Your task to perform on an android device: turn off notifications in google photos Image 0: 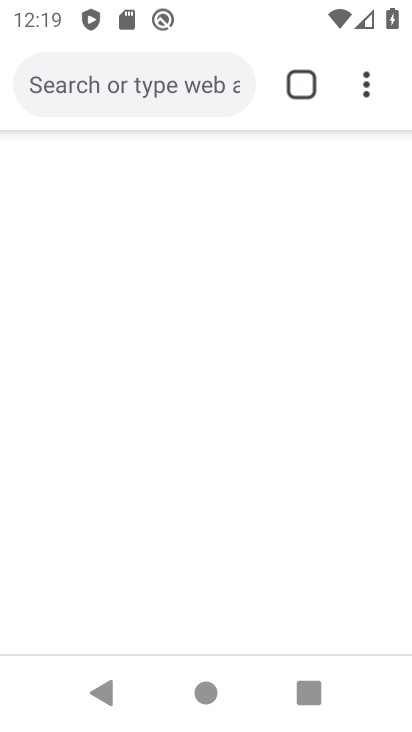
Step 0: drag from (330, 462) to (288, 214)
Your task to perform on an android device: turn off notifications in google photos Image 1: 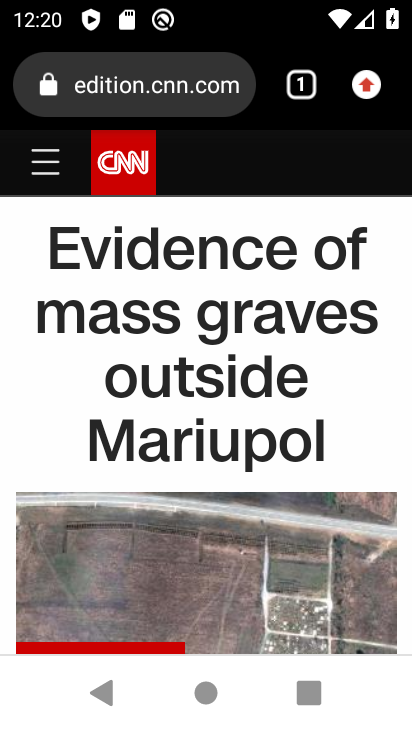
Step 1: drag from (364, 79) to (197, 518)
Your task to perform on an android device: turn off notifications in google photos Image 2: 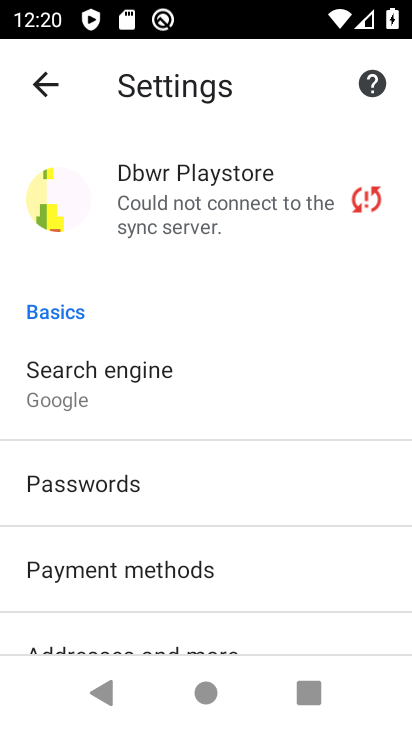
Step 2: drag from (227, 511) to (244, 196)
Your task to perform on an android device: turn off notifications in google photos Image 3: 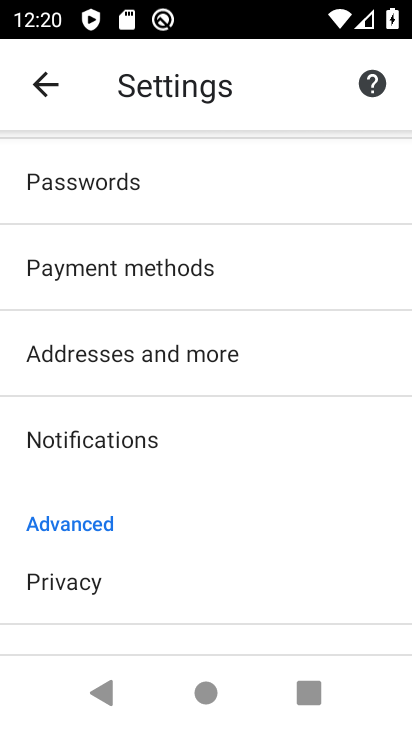
Step 3: click (160, 450)
Your task to perform on an android device: turn off notifications in google photos Image 4: 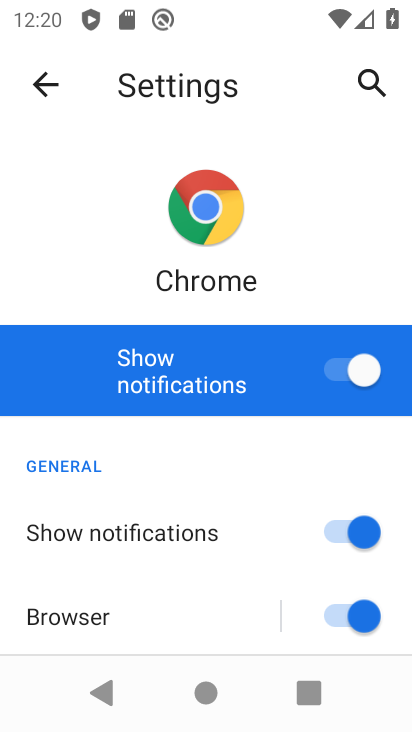
Step 4: click (60, 90)
Your task to perform on an android device: turn off notifications in google photos Image 5: 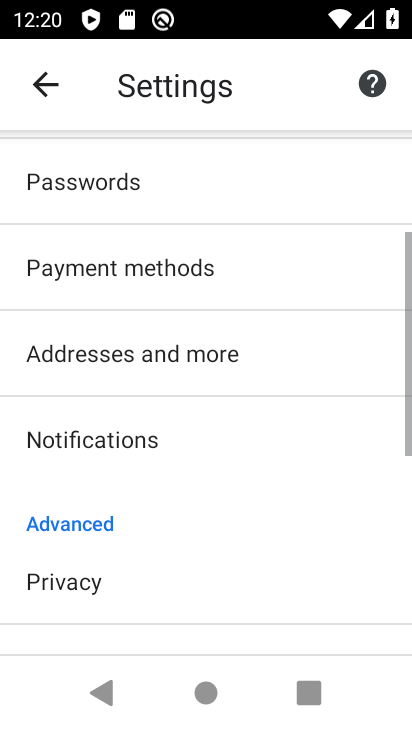
Step 5: click (55, 88)
Your task to perform on an android device: turn off notifications in google photos Image 6: 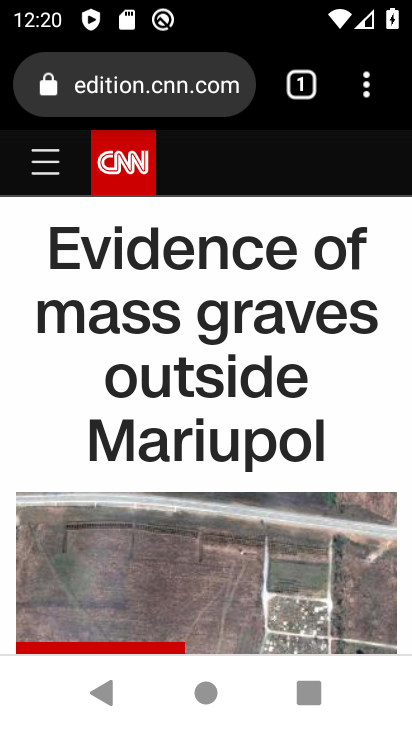
Step 6: press back button
Your task to perform on an android device: turn off notifications in google photos Image 7: 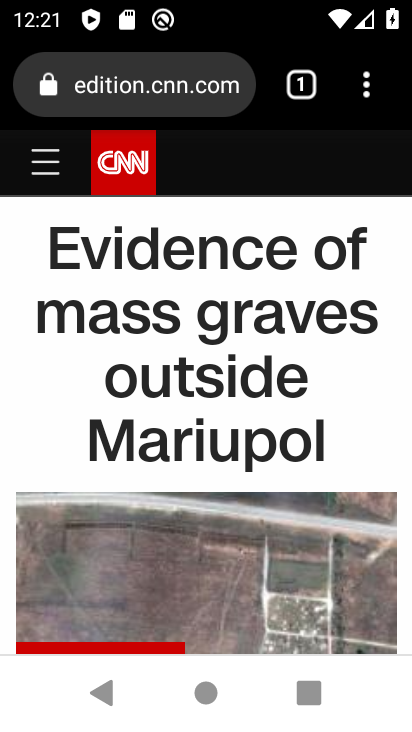
Step 7: press home button
Your task to perform on an android device: turn off notifications in google photos Image 8: 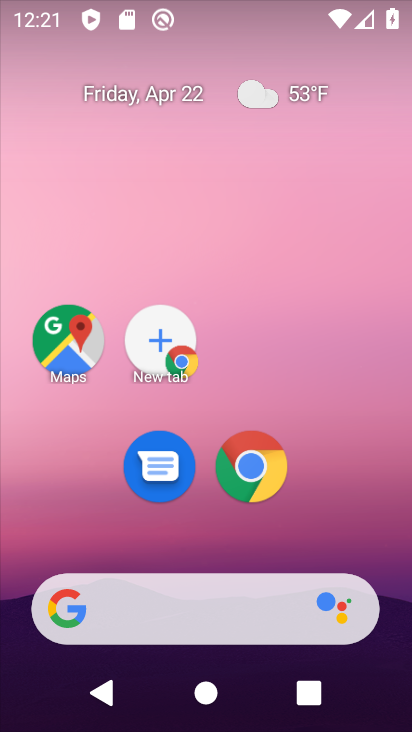
Step 8: drag from (302, 478) to (254, 10)
Your task to perform on an android device: turn off notifications in google photos Image 9: 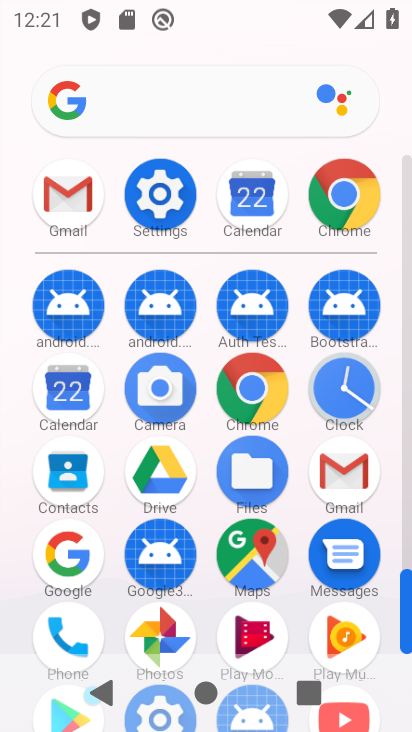
Step 9: drag from (10, 580) to (19, 272)
Your task to perform on an android device: turn off notifications in google photos Image 10: 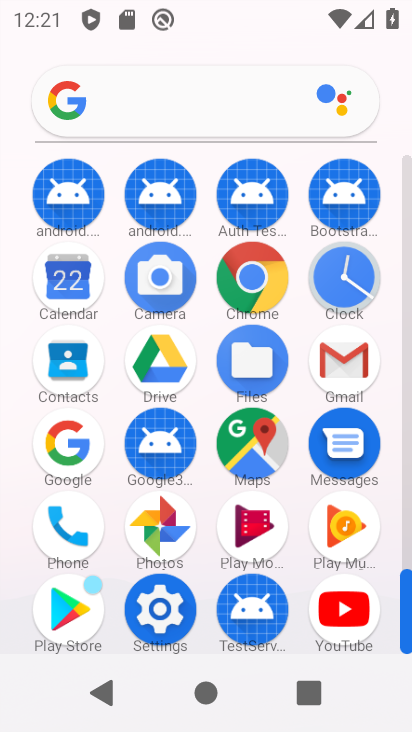
Step 10: click (160, 521)
Your task to perform on an android device: turn off notifications in google photos Image 11: 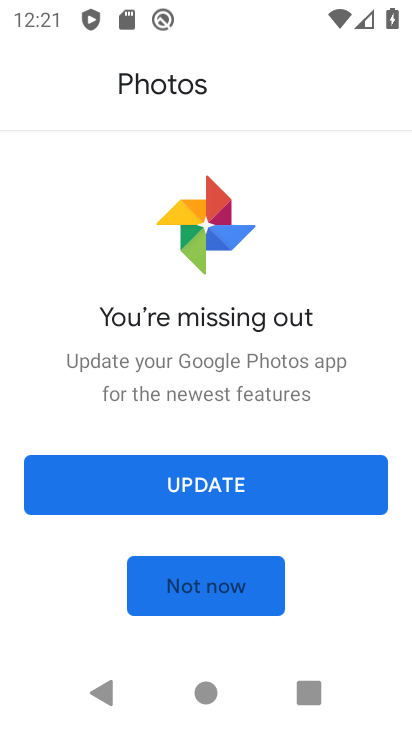
Step 11: click (243, 476)
Your task to perform on an android device: turn off notifications in google photos Image 12: 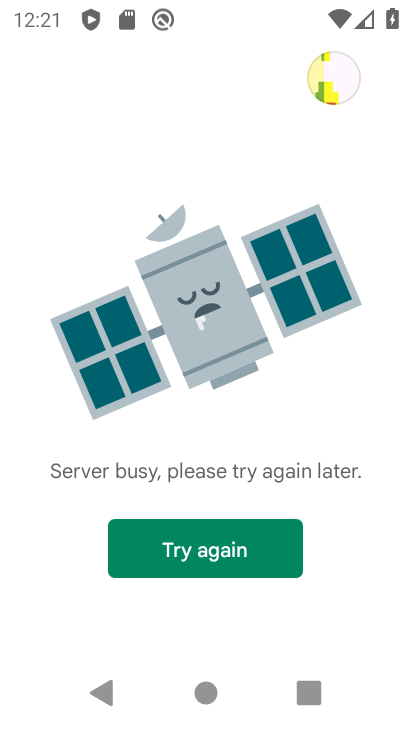
Step 12: click (210, 519)
Your task to perform on an android device: turn off notifications in google photos Image 13: 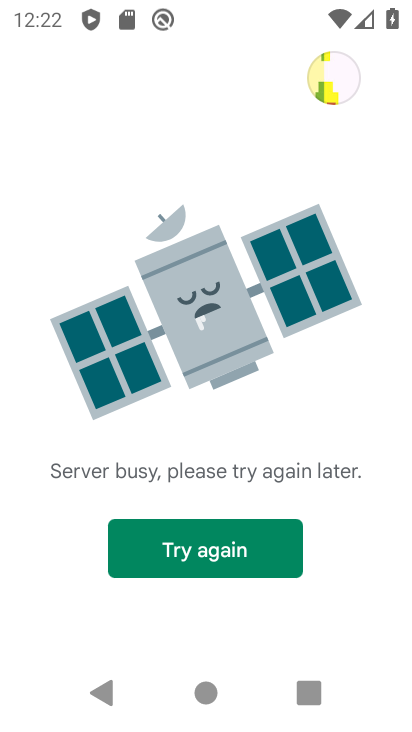
Step 13: click (234, 556)
Your task to perform on an android device: turn off notifications in google photos Image 14: 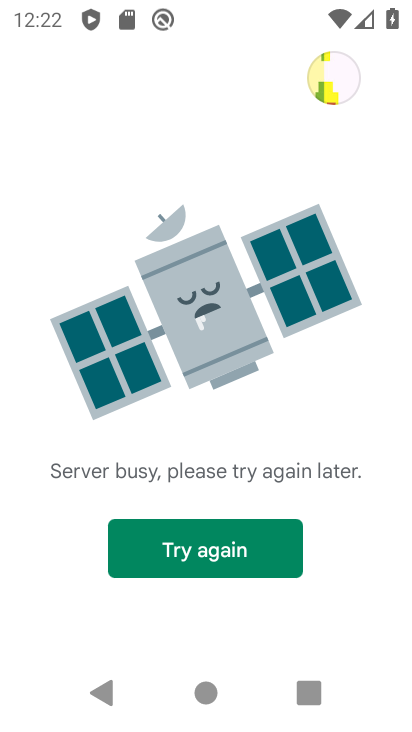
Step 14: task complete